Your task to perform on an android device: turn off notifications in google photos Image 0: 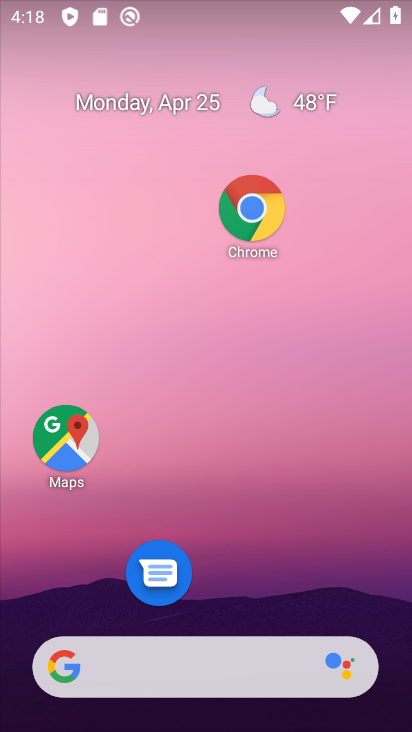
Step 0: drag from (215, 479) to (202, 110)
Your task to perform on an android device: turn off notifications in google photos Image 1: 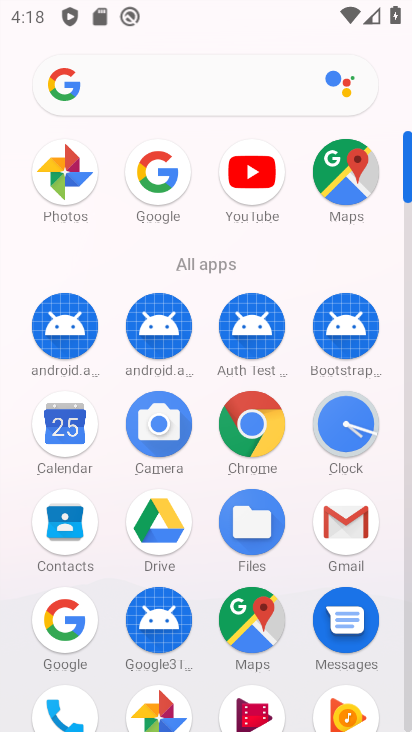
Step 1: click (84, 178)
Your task to perform on an android device: turn off notifications in google photos Image 2: 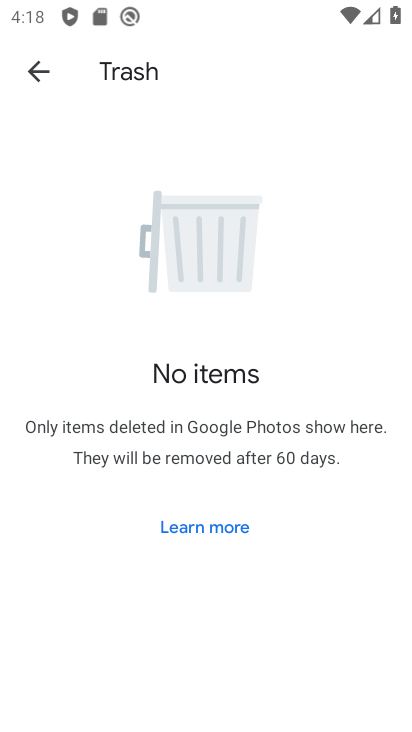
Step 2: click (39, 72)
Your task to perform on an android device: turn off notifications in google photos Image 3: 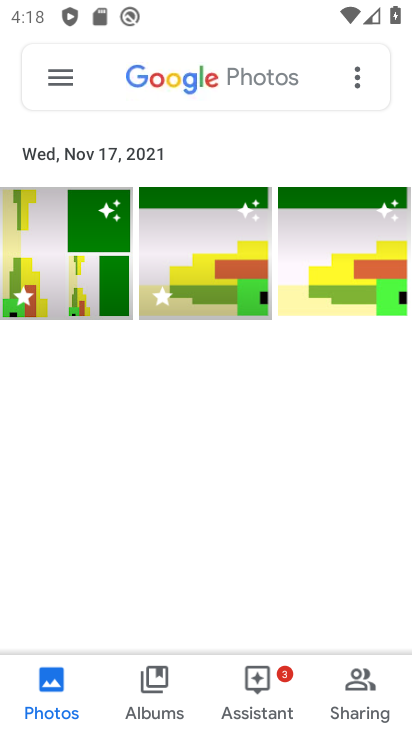
Step 3: click (51, 83)
Your task to perform on an android device: turn off notifications in google photos Image 4: 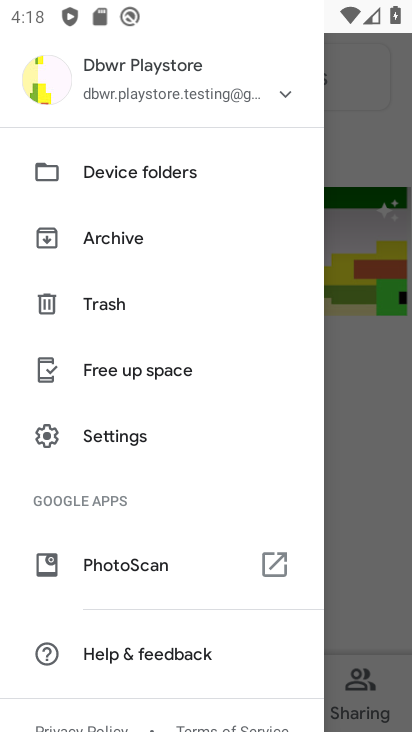
Step 4: click (103, 435)
Your task to perform on an android device: turn off notifications in google photos Image 5: 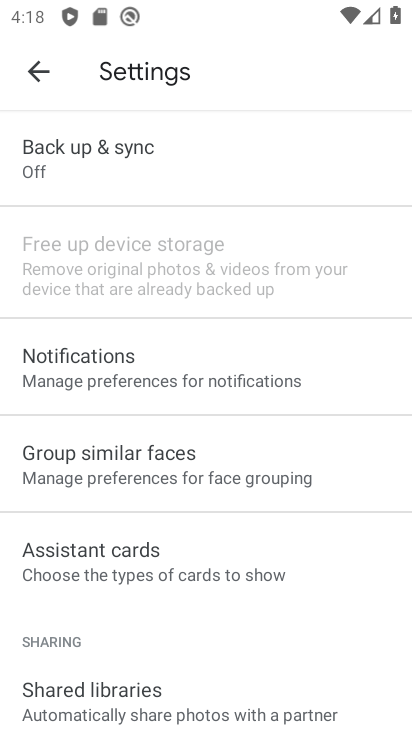
Step 5: click (152, 386)
Your task to perform on an android device: turn off notifications in google photos Image 6: 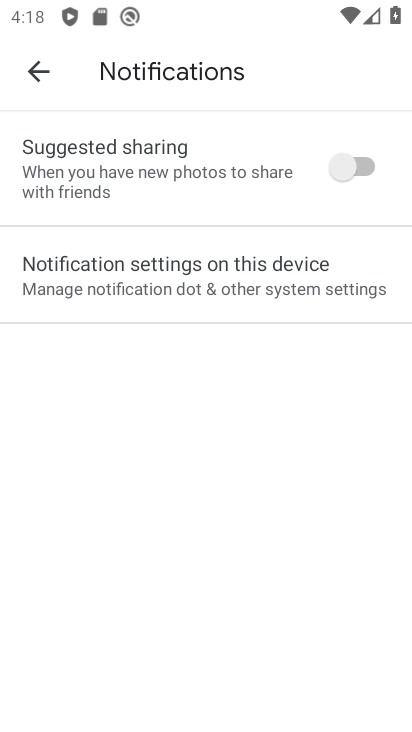
Step 6: click (264, 278)
Your task to perform on an android device: turn off notifications in google photos Image 7: 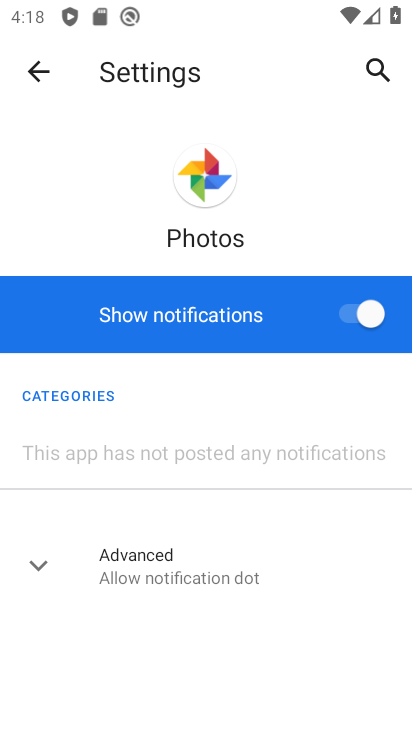
Step 7: click (352, 318)
Your task to perform on an android device: turn off notifications in google photos Image 8: 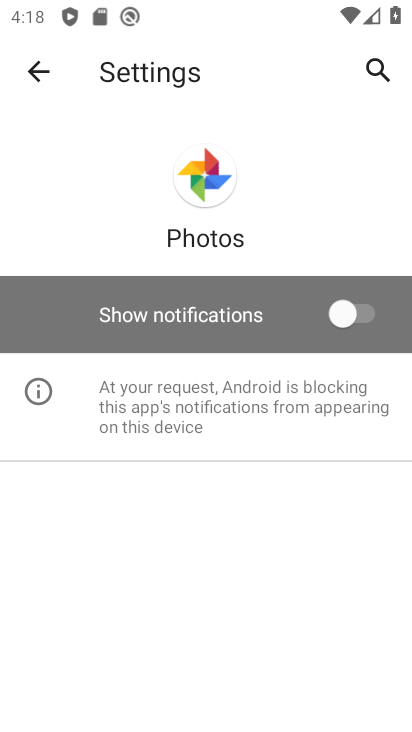
Step 8: task complete